Your task to perform on an android device: turn off improve location accuracy Image 0: 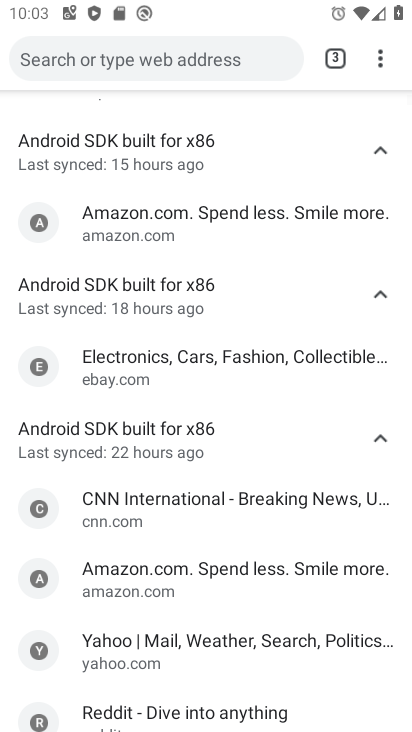
Step 0: drag from (296, 579) to (373, 305)
Your task to perform on an android device: turn off improve location accuracy Image 1: 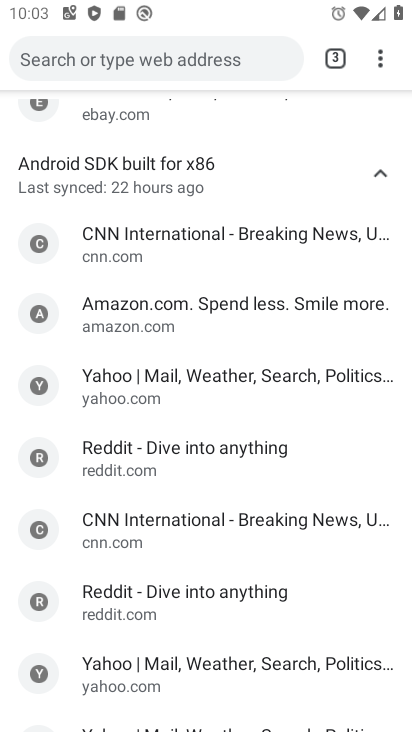
Step 1: drag from (157, 580) to (211, 366)
Your task to perform on an android device: turn off improve location accuracy Image 2: 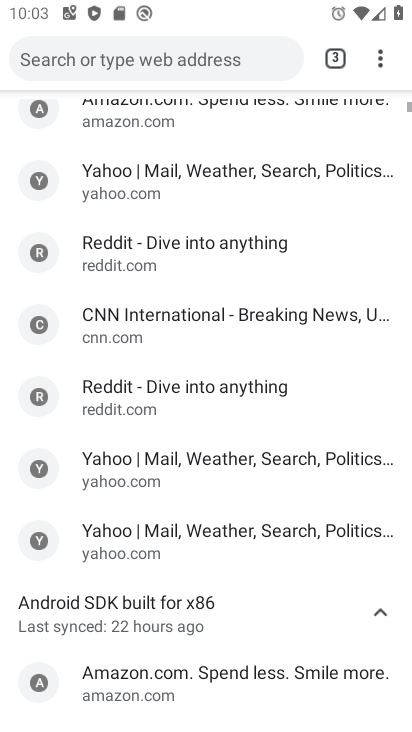
Step 2: drag from (190, 701) to (402, 252)
Your task to perform on an android device: turn off improve location accuracy Image 3: 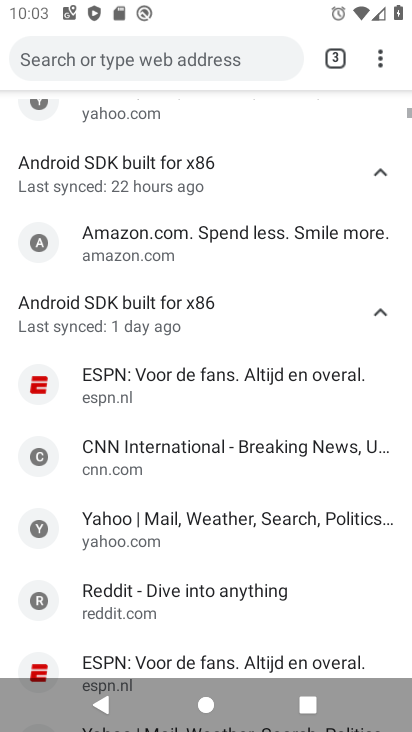
Step 3: drag from (275, 268) to (284, 669)
Your task to perform on an android device: turn off improve location accuracy Image 4: 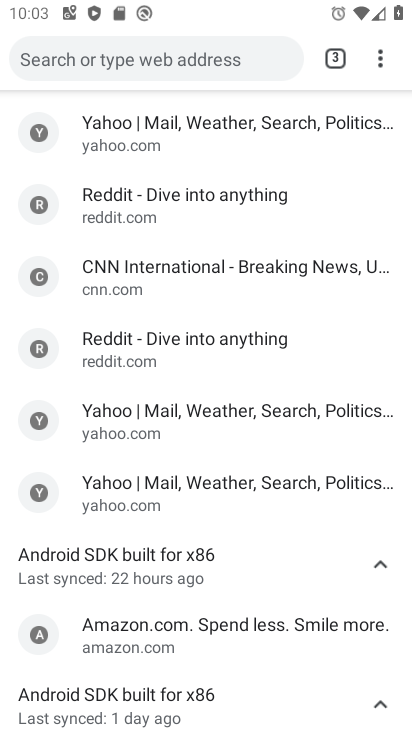
Step 4: press home button
Your task to perform on an android device: turn off improve location accuracy Image 5: 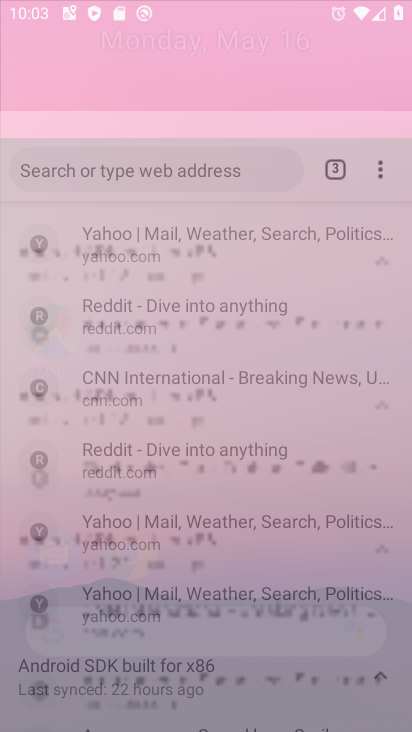
Step 5: drag from (170, 600) to (403, 41)
Your task to perform on an android device: turn off improve location accuracy Image 6: 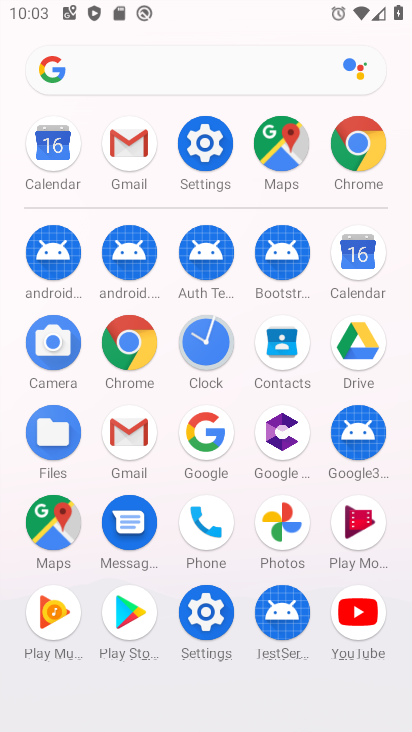
Step 6: drag from (230, 449) to (256, 374)
Your task to perform on an android device: turn off improve location accuracy Image 7: 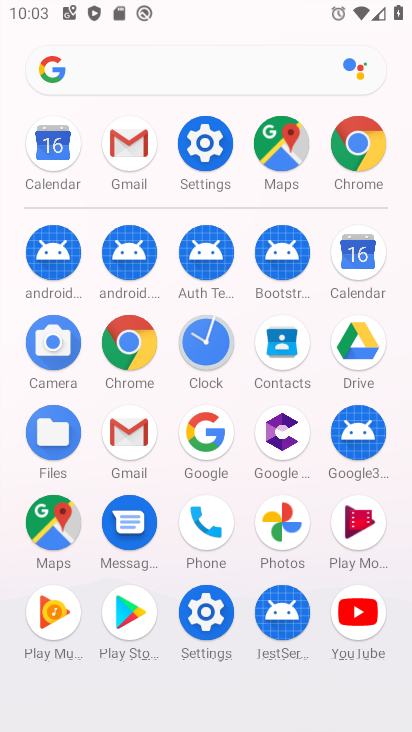
Step 7: click (199, 623)
Your task to perform on an android device: turn off improve location accuracy Image 8: 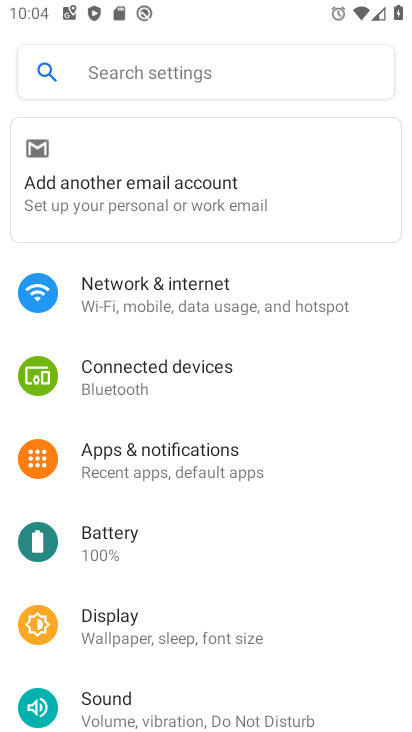
Step 8: drag from (246, 668) to (376, 187)
Your task to perform on an android device: turn off improve location accuracy Image 9: 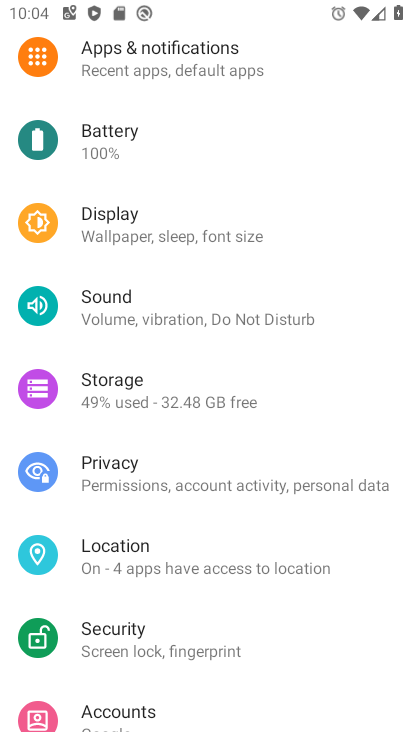
Step 9: drag from (206, 639) to (301, 233)
Your task to perform on an android device: turn off improve location accuracy Image 10: 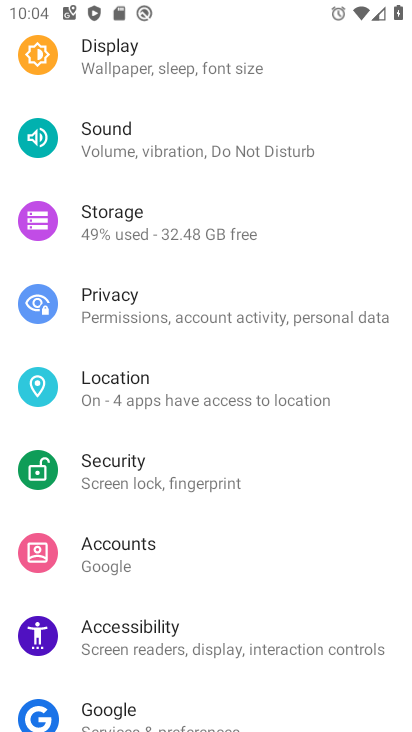
Step 10: drag from (219, 641) to (289, 391)
Your task to perform on an android device: turn off improve location accuracy Image 11: 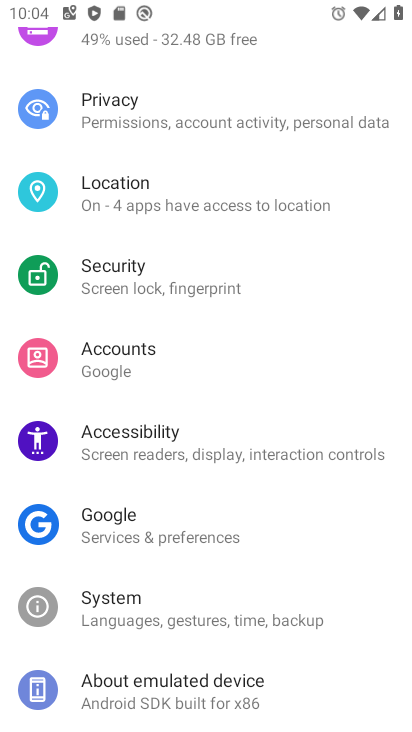
Step 11: drag from (260, 657) to (353, 131)
Your task to perform on an android device: turn off improve location accuracy Image 12: 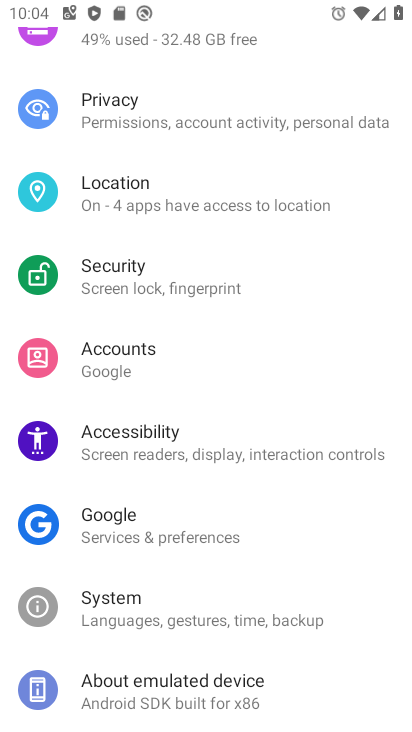
Step 12: drag from (261, 561) to (284, 477)
Your task to perform on an android device: turn off improve location accuracy Image 13: 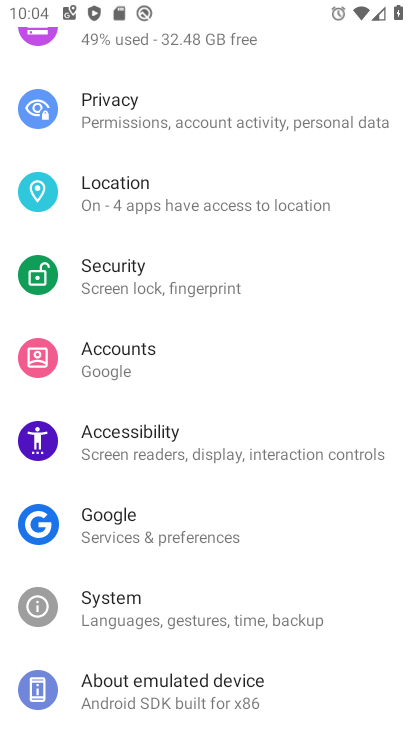
Step 13: click (211, 198)
Your task to perform on an android device: turn off improve location accuracy Image 14: 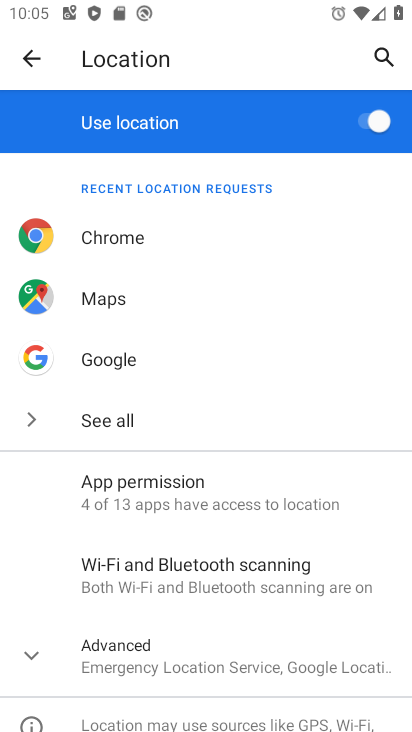
Step 14: drag from (106, 648) to (260, 207)
Your task to perform on an android device: turn off improve location accuracy Image 15: 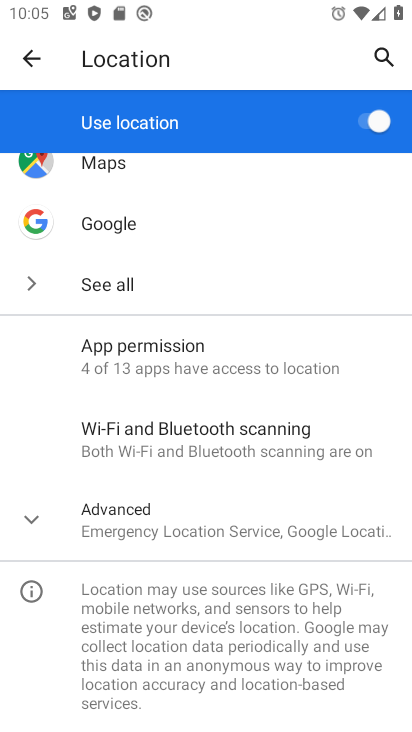
Step 15: drag from (156, 287) to (213, 726)
Your task to perform on an android device: turn off improve location accuracy Image 16: 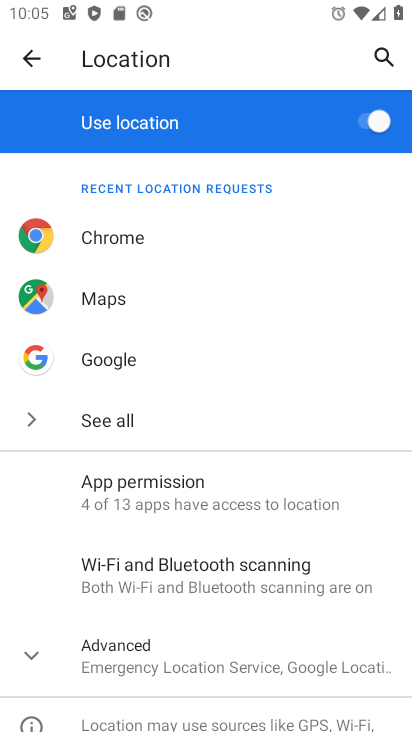
Step 16: click (214, 656)
Your task to perform on an android device: turn off improve location accuracy Image 17: 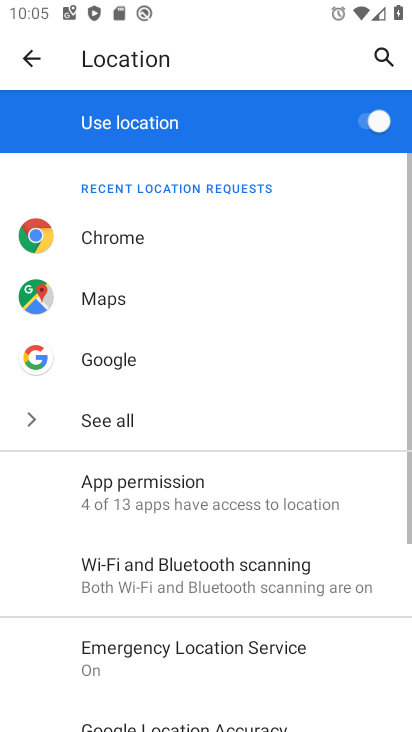
Step 17: drag from (237, 608) to (298, 309)
Your task to perform on an android device: turn off improve location accuracy Image 18: 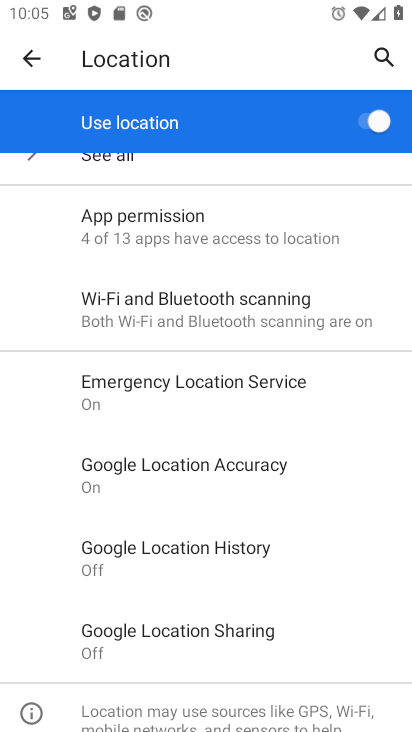
Step 18: click (229, 503)
Your task to perform on an android device: turn off improve location accuracy Image 19: 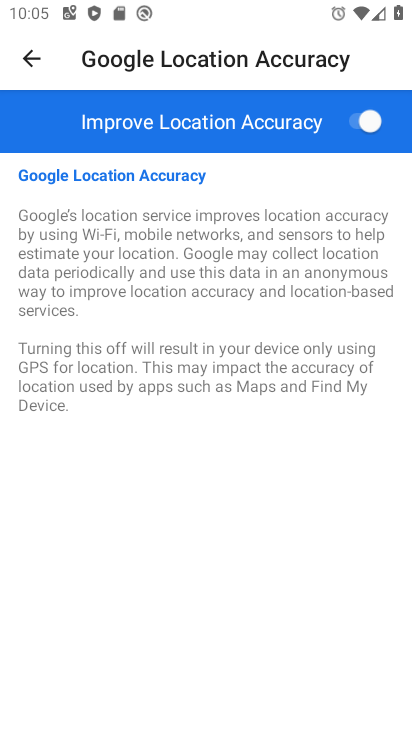
Step 19: click (351, 143)
Your task to perform on an android device: turn off improve location accuracy Image 20: 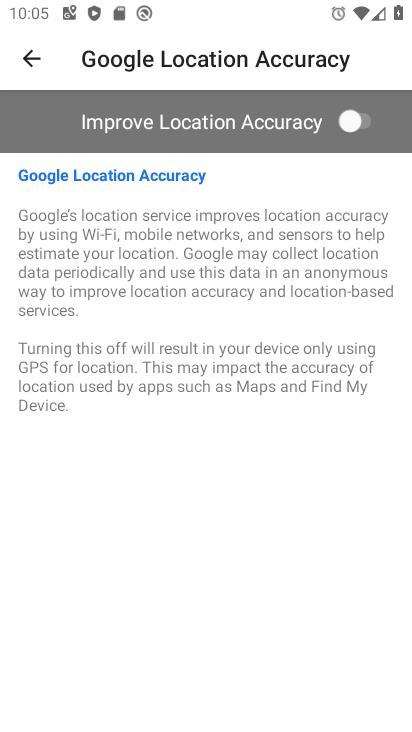
Step 20: task complete